Your task to perform on an android device: Open wifi settings Image 0: 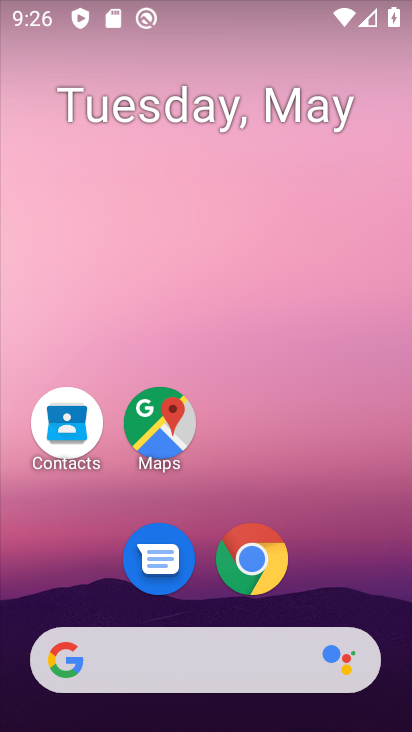
Step 0: drag from (344, 567) to (275, 80)
Your task to perform on an android device: Open wifi settings Image 1: 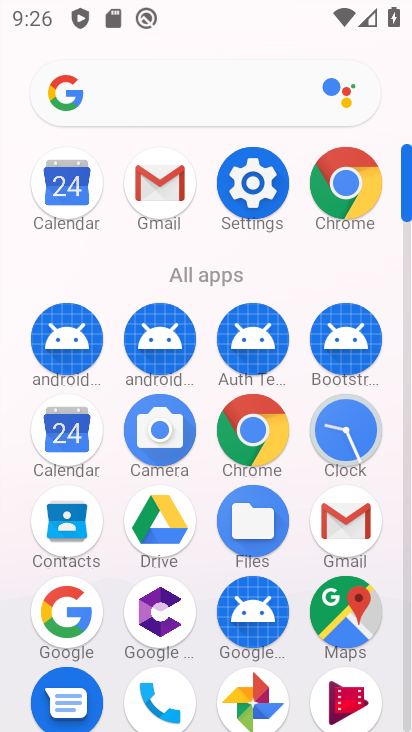
Step 1: click (265, 166)
Your task to perform on an android device: Open wifi settings Image 2: 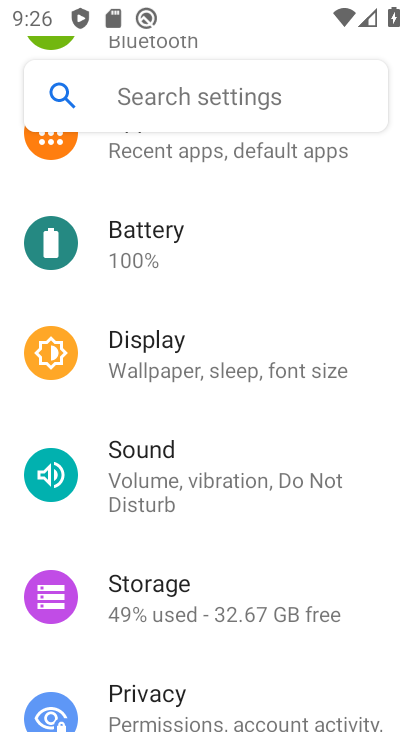
Step 2: drag from (234, 192) to (266, 568)
Your task to perform on an android device: Open wifi settings Image 3: 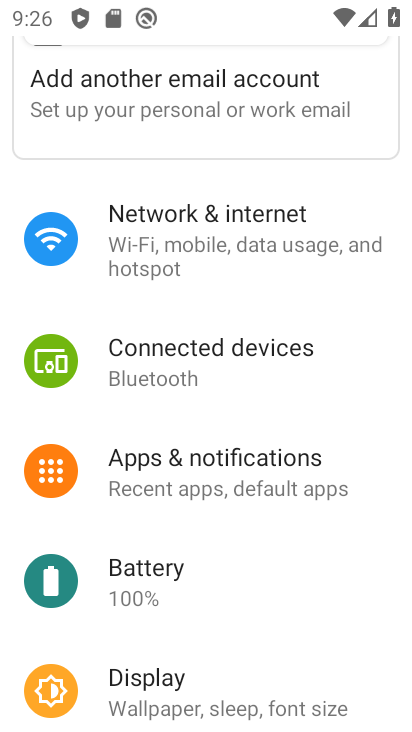
Step 3: click (204, 315)
Your task to perform on an android device: Open wifi settings Image 4: 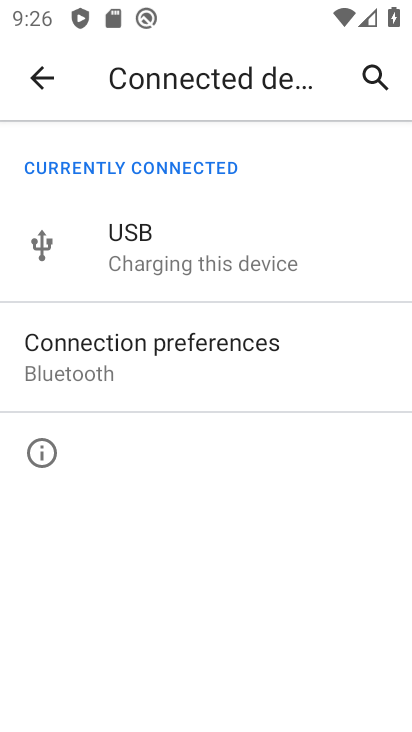
Step 4: task complete